Your task to perform on an android device: refresh tabs in the chrome app Image 0: 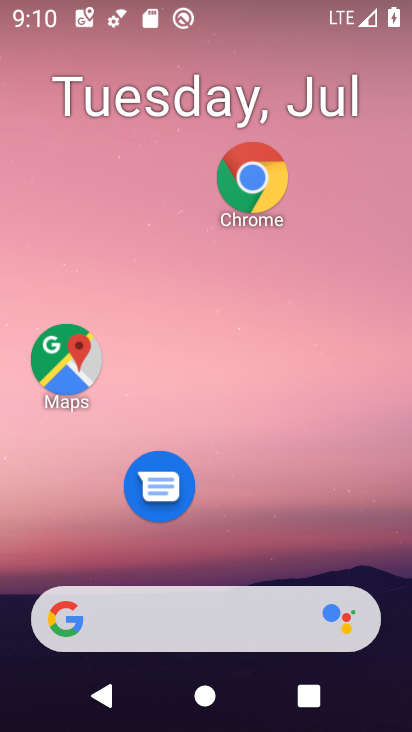
Step 0: drag from (231, 644) to (269, 151)
Your task to perform on an android device: refresh tabs in the chrome app Image 1: 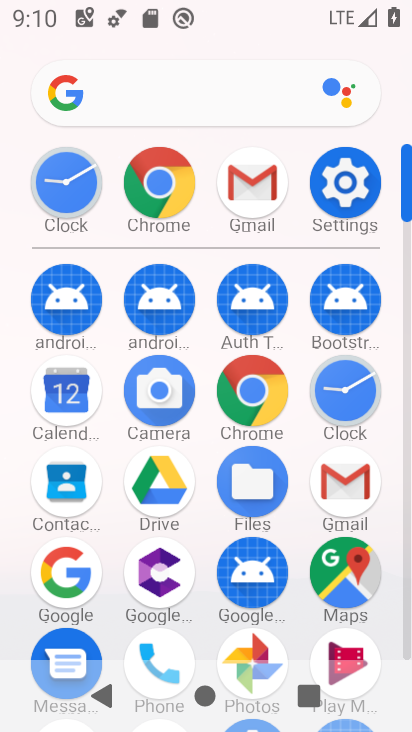
Step 1: click (257, 427)
Your task to perform on an android device: refresh tabs in the chrome app Image 2: 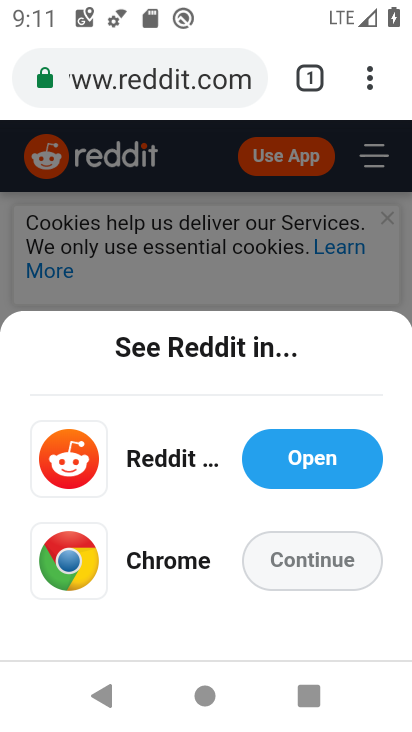
Step 2: click (369, 89)
Your task to perform on an android device: refresh tabs in the chrome app Image 3: 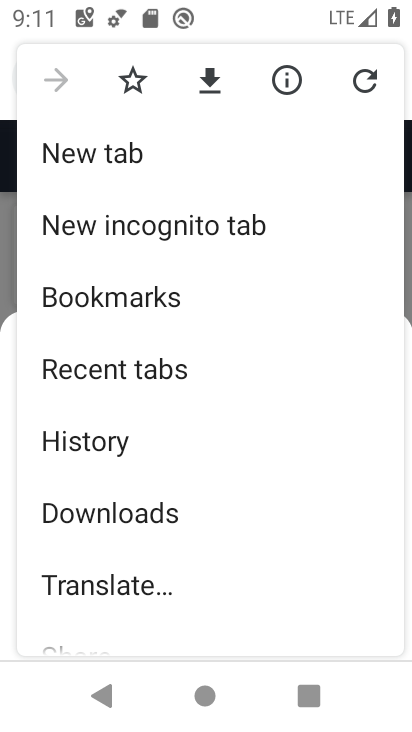
Step 3: click (371, 84)
Your task to perform on an android device: refresh tabs in the chrome app Image 4: 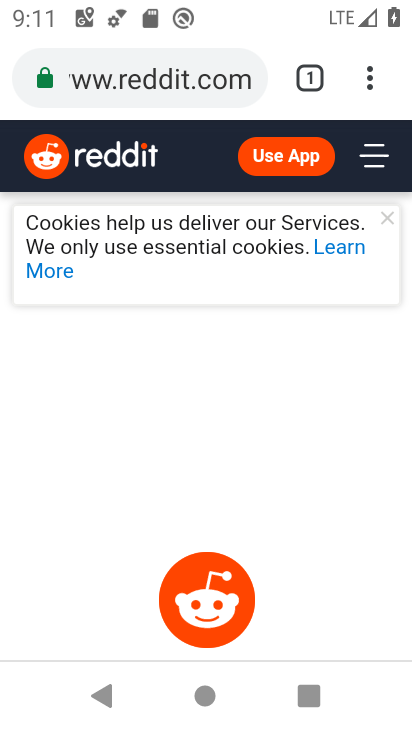
Step 4: task complete